Your task to perform on an android device: When is my next meeting? Image 0: 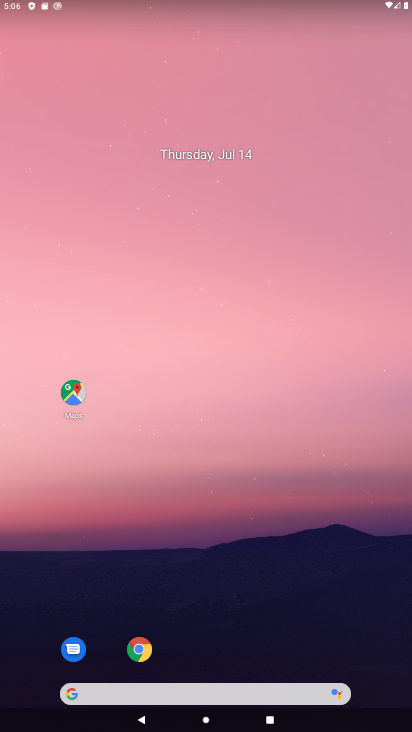
Step 0: drag from (263, 665) to (301, 0)
Your task to perform on an android device: When is my next meeting? Image 1: 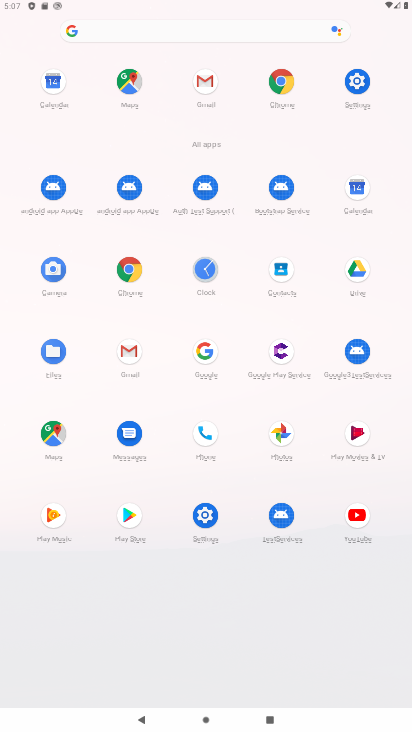
Step 1: click (358, 190)
Your task to perform on an android device: When is my next meeting? Image 2: 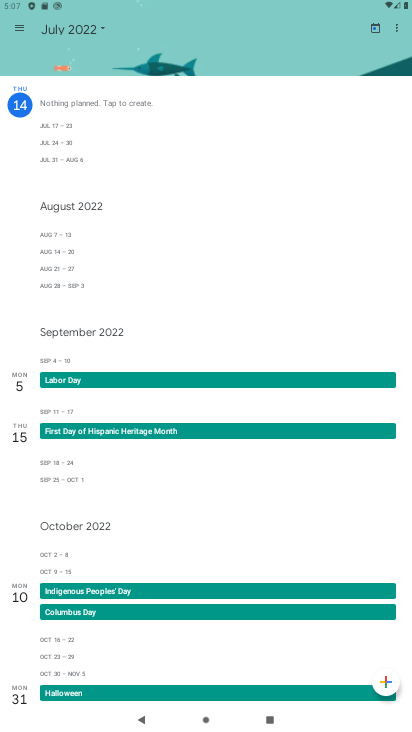
Step 2: task complete